Your task to perform on an android device: Go to Wikipedia Image 0: 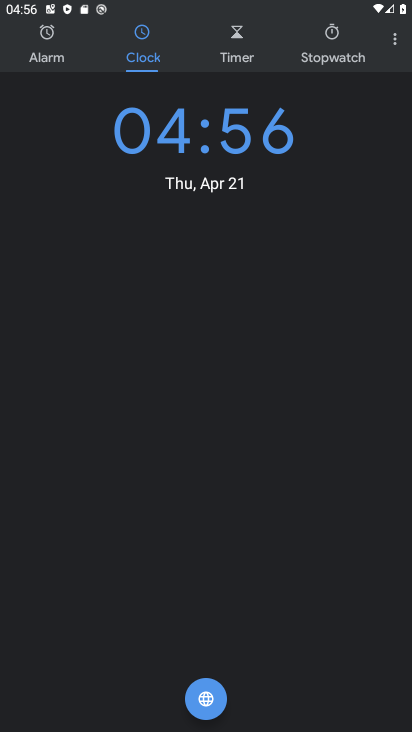
Step 0: press home button
Your task to perform on an android device: Go to Wikipedia Image 1: 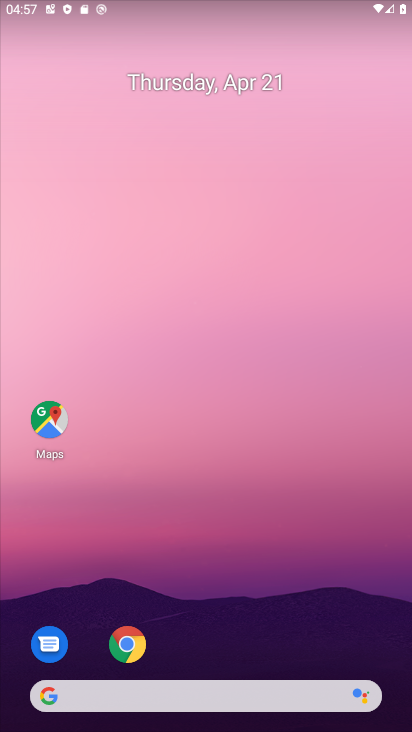
Step 1: drag from (256, 548) to (269, 253)
Your task to perform on an android device: Go to Wikipedia Image 2: 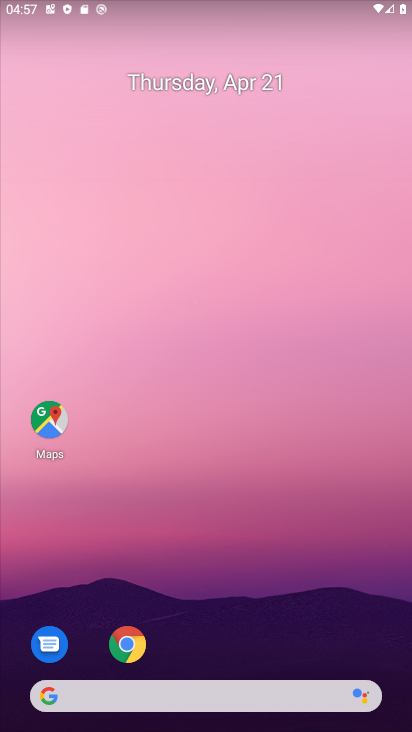
Step 2: drag from (319, 631) to (339, 139)
Your task to perform on an android device: Go to Wikipedia Image 3: 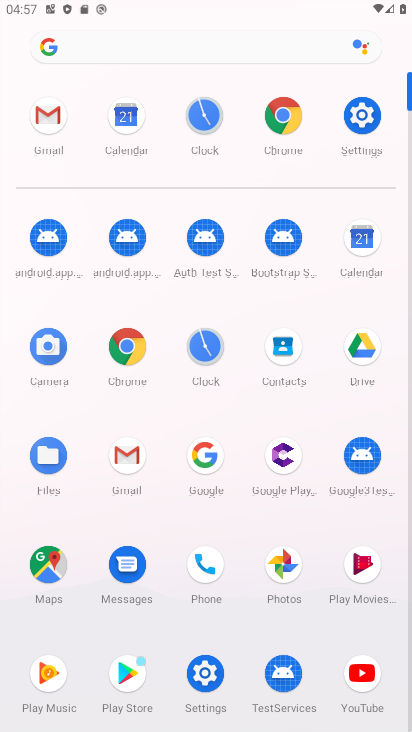
Step 3: click (120, 346)
Your task to perform on an android device: Go to Wikipedia Image 4: 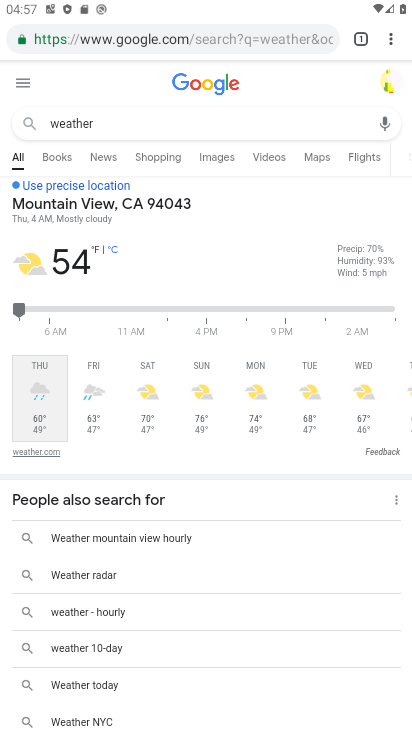
Step 4: click (223, 21)
Your task to perform on an android device: Go to Wikipedia Image 5: 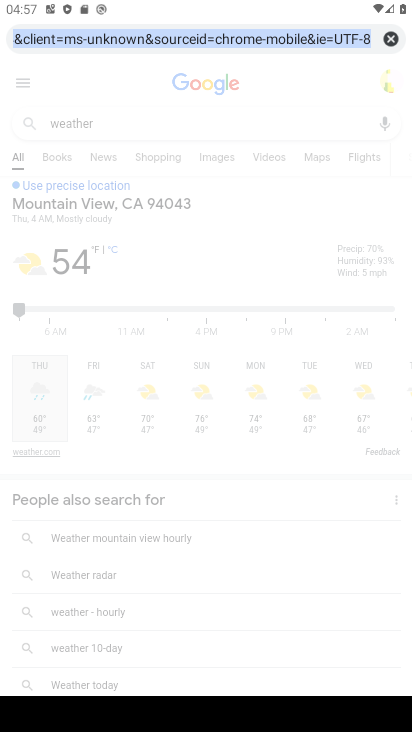
Step 5: type "wikipedia"
Your task to perform on an android device: Go to Wikipedia Image 6: 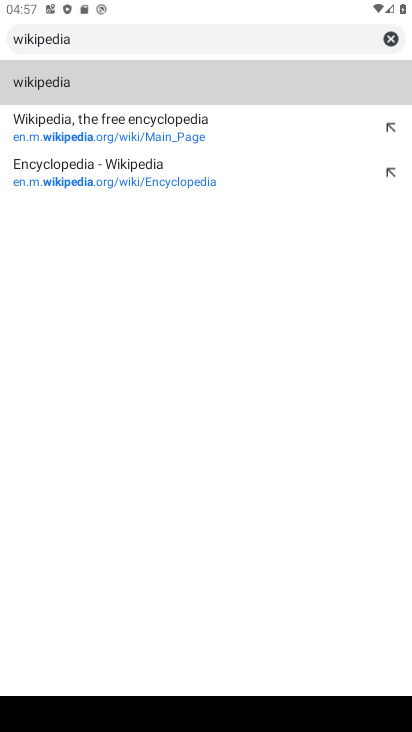
Step 6: click (61, 82)
Your task to perform on an android device: Go to Wikipedia Image 7: 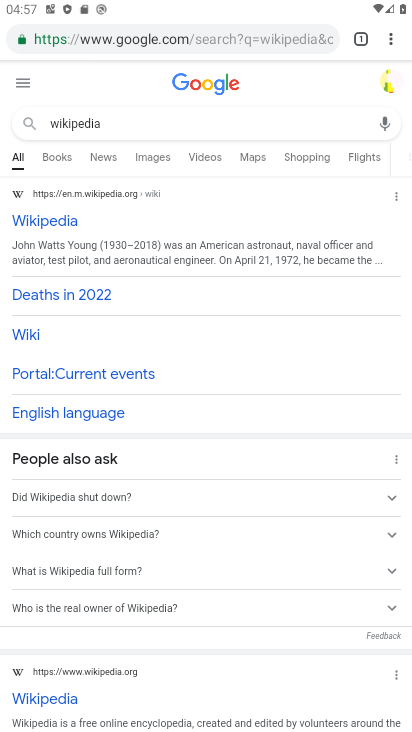
Step 7: click (36, 220)
Your task to perform on an android device: Go to Wikipedia Image 8: 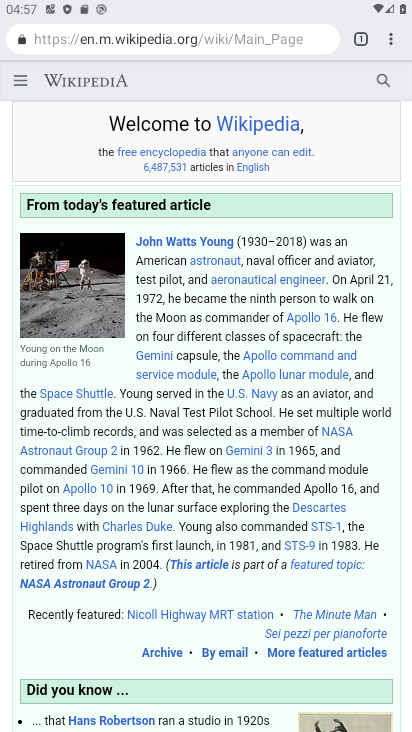
Step 8: task complete